Your task to perform on an android device: Search for Mexican restaurants on Maps Image 0: 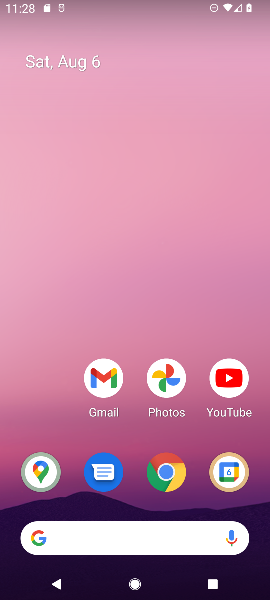
Step 0: drag from (171, 563) to (107, 347)
Your task to perform on an android device: Search for Mexican restaurants on Maps Image 1: 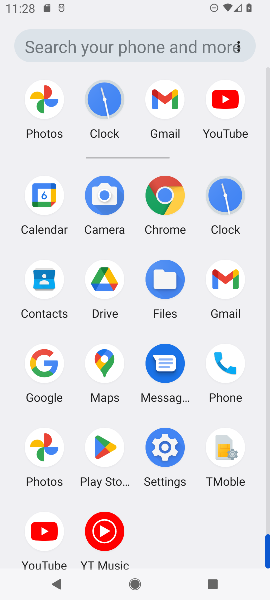
Step 1: click (94, 364)
Your task to perform on an android device: Search for Mexican restaurants on Maps Image 2: 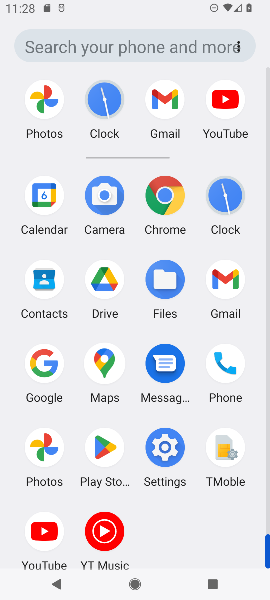
Step 2: click (94, 364)
Your task to perform on an android device: Search for Mexican restaurants on Maps Image 3: 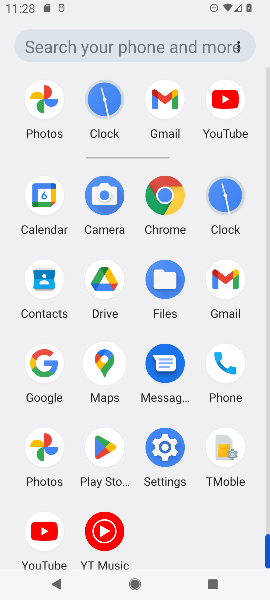
Step 3: click (95, 364)
Your task to perform on an android device: Search for Mexican restaurants on Maps Image 4: 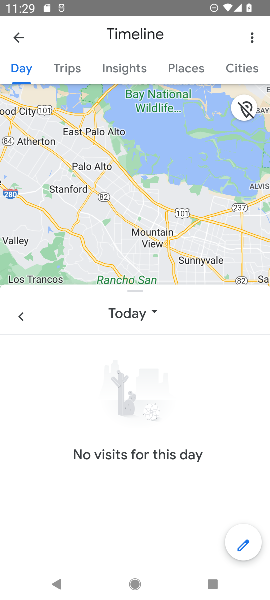
Step 4: click (20, 39)
Your task to perform on an android device: Search for Mexican restaurants on Maps Image 5: 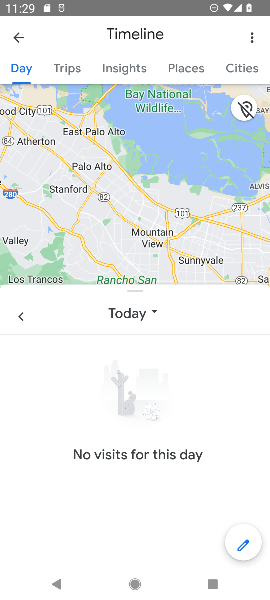
Step 5: click (17, 40)
Your task to perform on an android device: Search for Mexican restaurants on Maps Image 6: 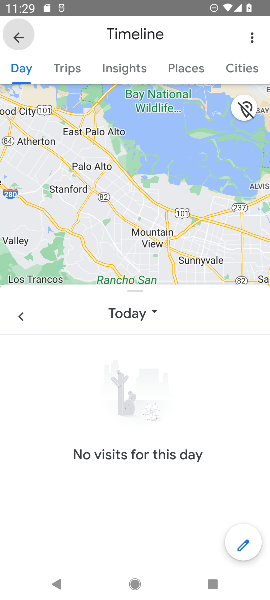
Step 6: click (20, 34)
Your task to perform on an android device: Search for Mexican restaurants on Maps Image 7: 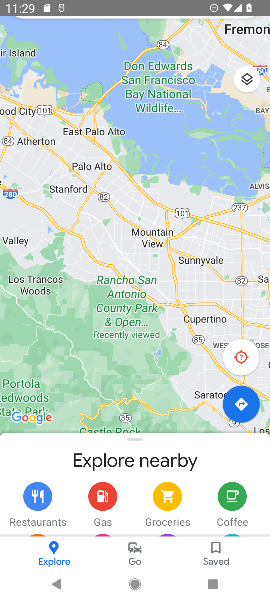
Step 7: click (20, 33)
Your task to perform on an android device: Search for Mexican restaurants on Maps Image 8: 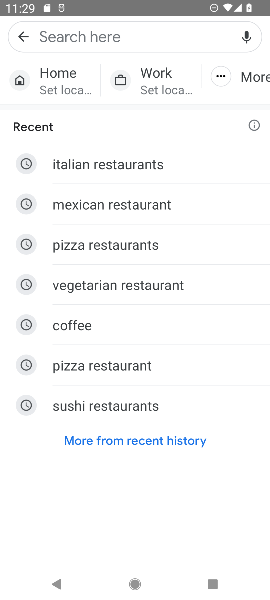
Step 8: click (70, 26)
Your task to perform on an android device: Search for Mexican restaurants on Maps Image 9: 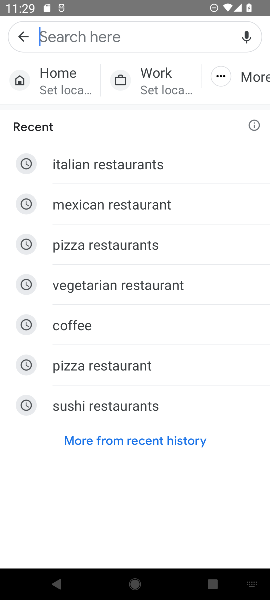
Step 9: click (70, 26)
Your task to perform on an android device: Search for Mexican restaurants on Maps Image 10: 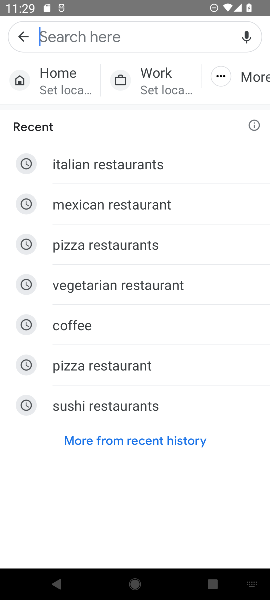
Step 10: click (85, 188)
Your task to perform on an android device: Search for Mexican restaurants on Maps Image 11: 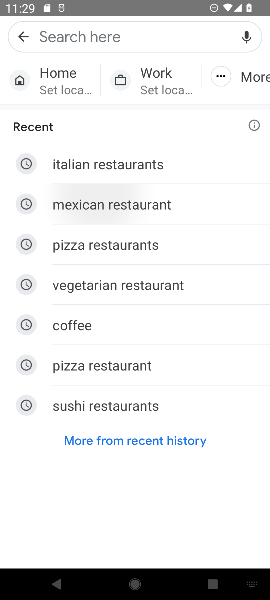
Step 11: click (86, 195)
Your task to perform on an android device: Search for Mexican restaurants on Maps Image 12: 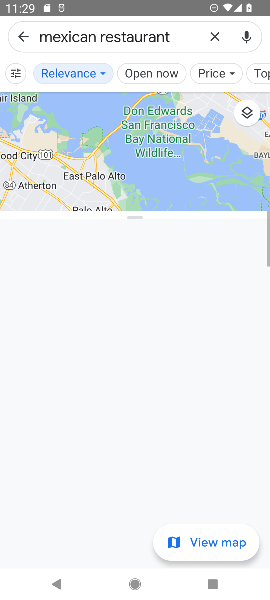
Step 12: task complete